Your task to perform on an android device: Open the map Image 0: 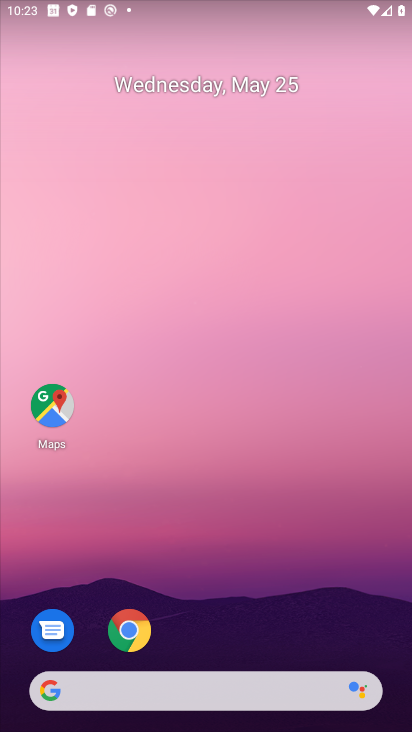
Step 0: click (35, 413)
Your task to perform on an android device: Open the map Image 1: 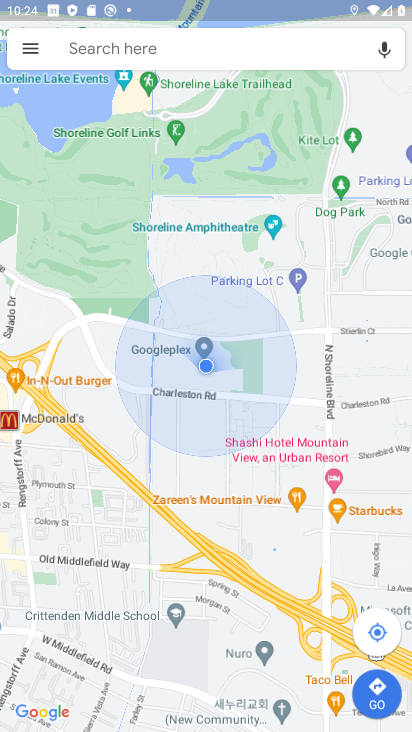
Step 1: task complete